Your task to perform on an android device: open app "PlayWell" (install if not already installed) and go to login screen Image 0: 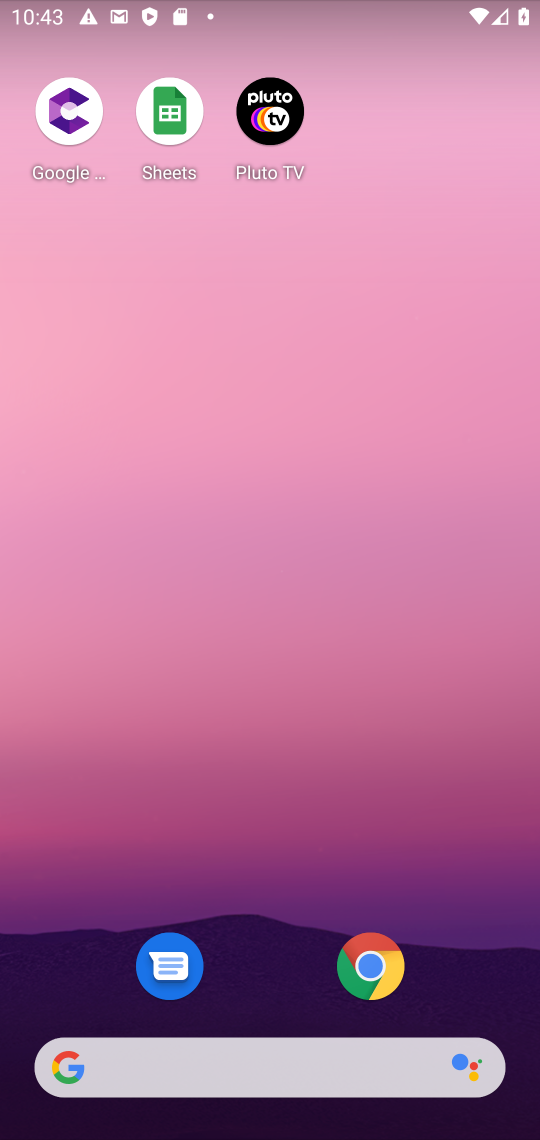
Step 0: press home button
Your task to perform on an android device: open app "PlayWell" (install if not already installed) and go to login screen Image 1: 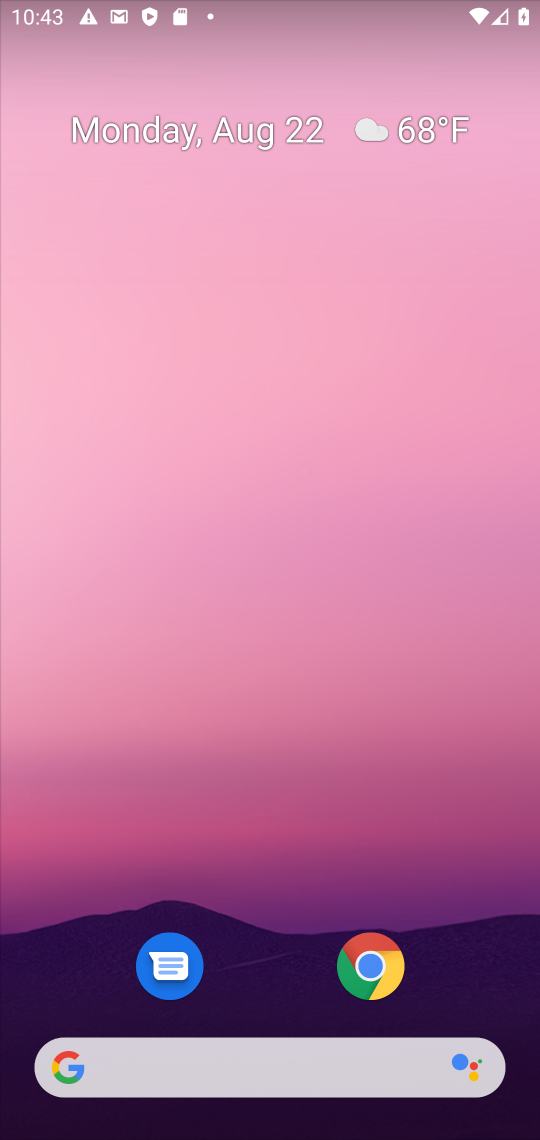
Step 1: drag from (460, 801) to (464, 104)
Your task to perform on an android device: open app "PlayWell" (install if not already installed) and go to login screen Image 2: 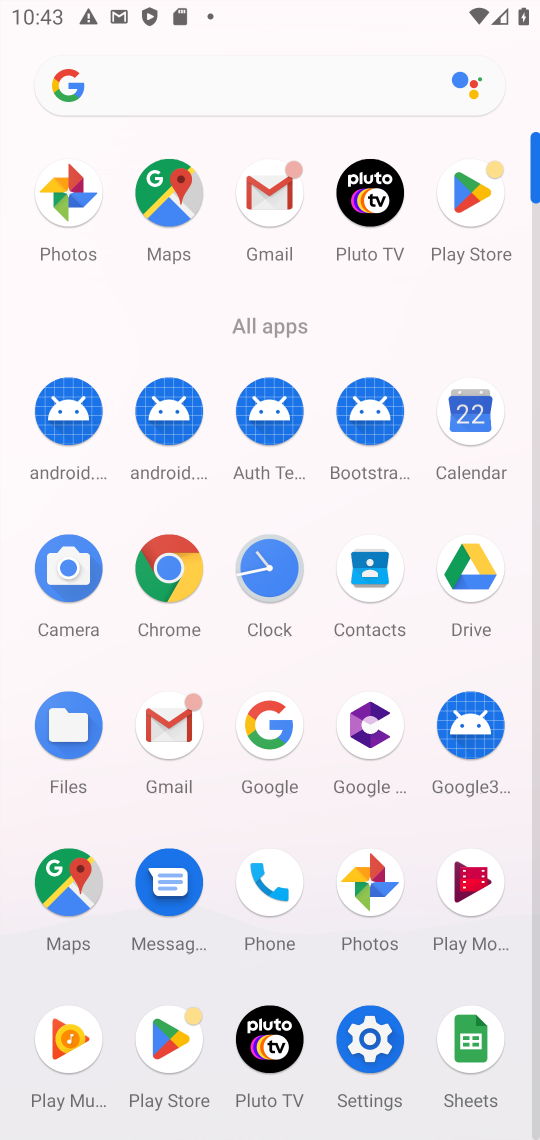
Step 2: click (471, 185)
Your task to perform on an android device: open app "PlayWell" (install if not already installed) and go to login screen Image 3: 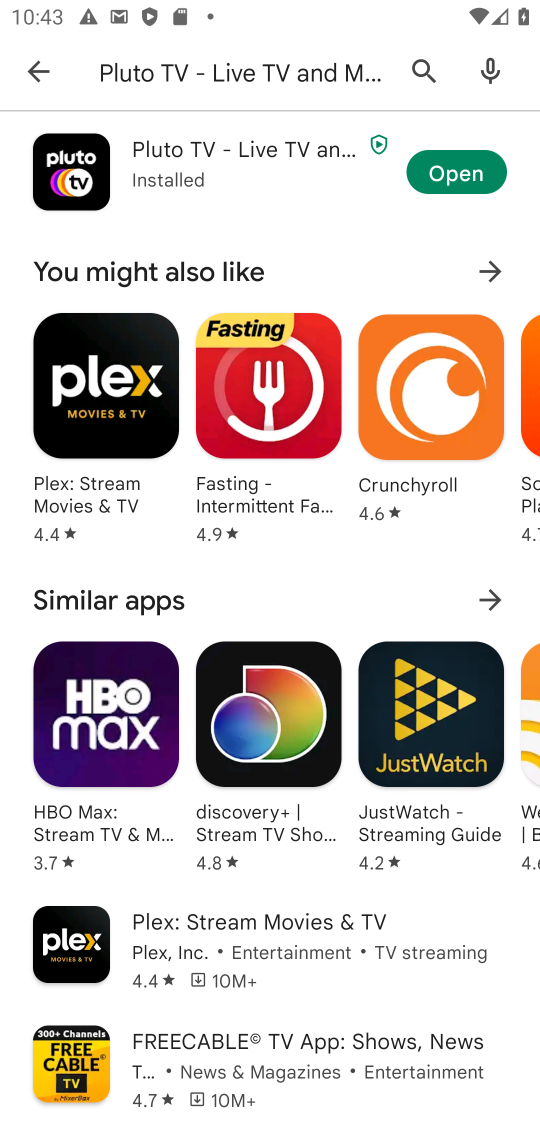
Step 3: press back button
Your task to perform on an android device: open app "PlayWell" (install if not already installed) and go to login screen Image 4: 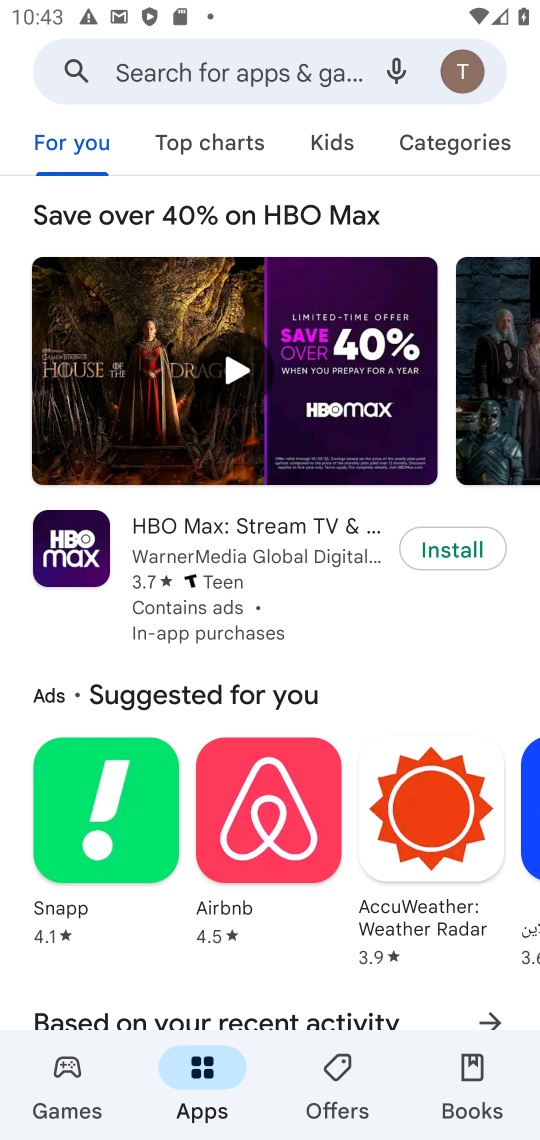
Step 4: click (221, 59)
Your task to perform on an android device: open app "PlayWell" (install if not already installed) and go to login screen Image 5: 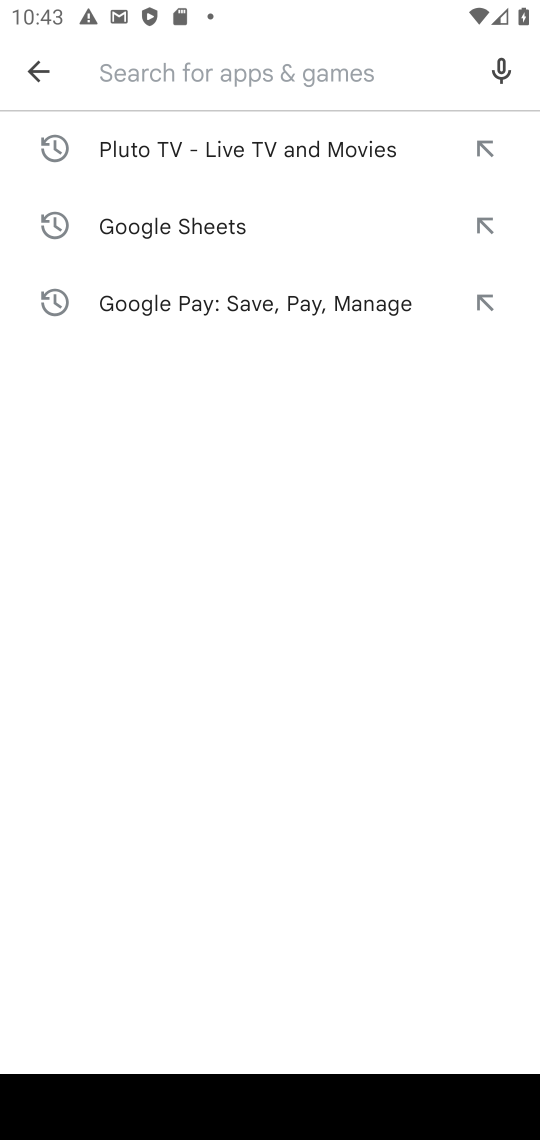
Step 5: press enter
Your task to perform on an android device: open app "PlayWell" (install if not already installed) and go to login screen Image 6: 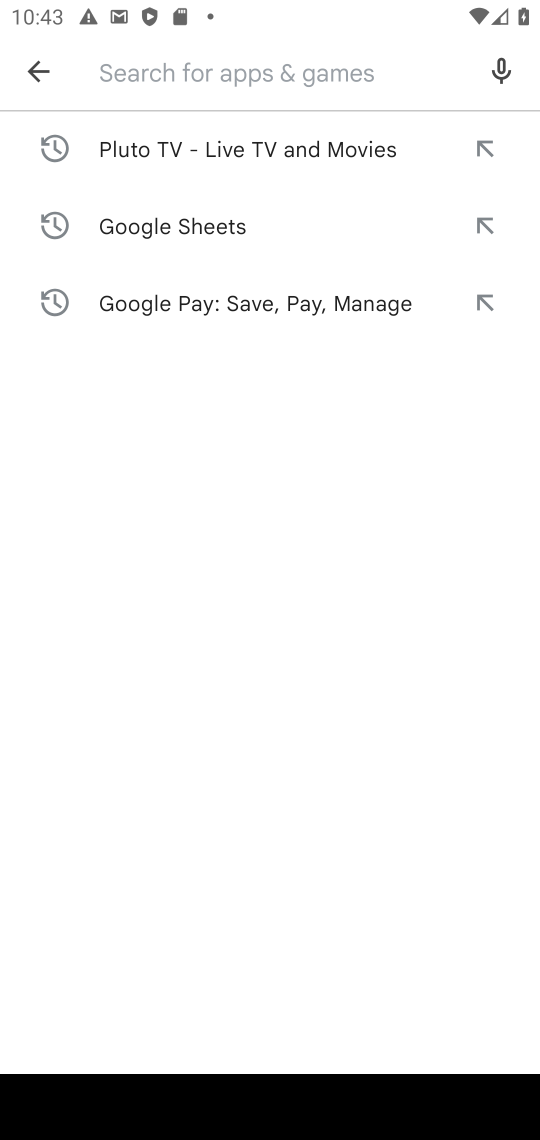
Step 6: type "play well"
Your task to perform on an android device: open app "PlayWell" (install if not already installed) and go to login screen Image 7: 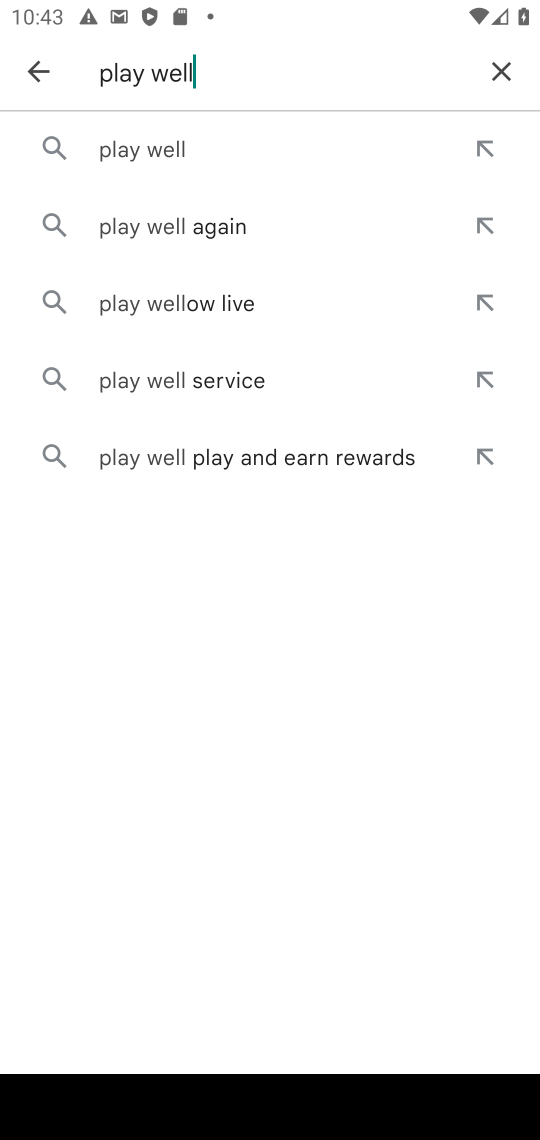
Step 7: click (187, 135)
Your task to perform on an android device: open app "PlayWell" (install if not already installed) and go to login screen Image 8: 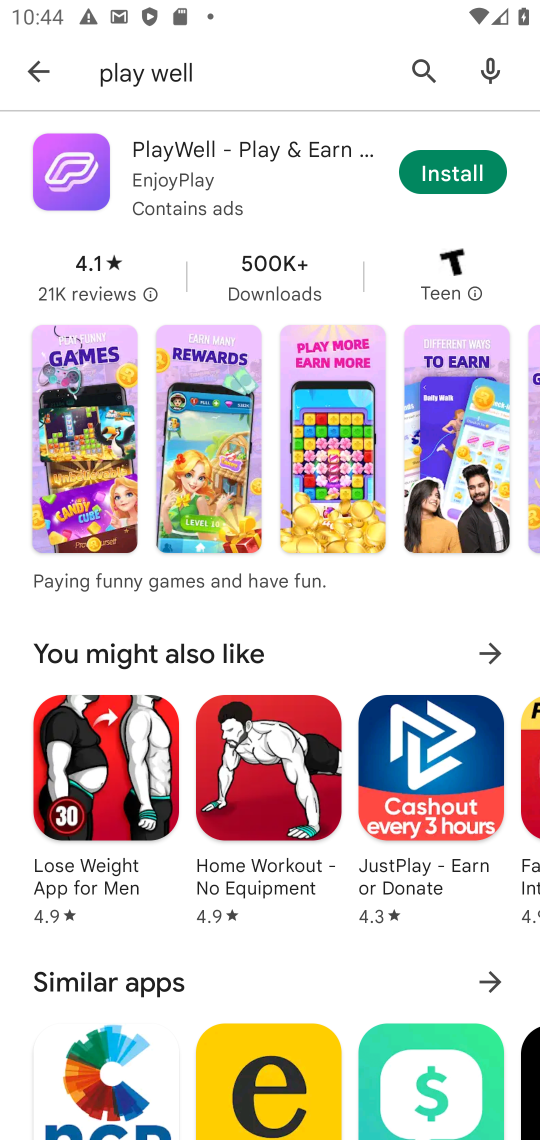
Step 8: click (458, 174)
Your task to perform on an android device: open app "PlayWell" (install if not already installed) and go to login screen Image 9: 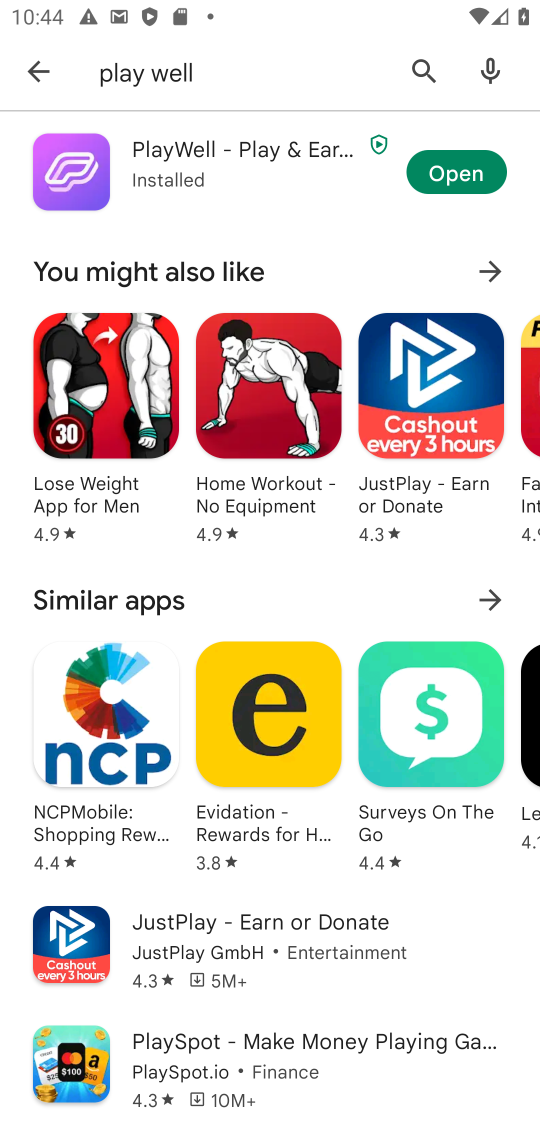
Step 9: click (468, 176)
Your task to perform on an android device: open app "PlayWell" (install if not already installed) and go to login screen Image 10: 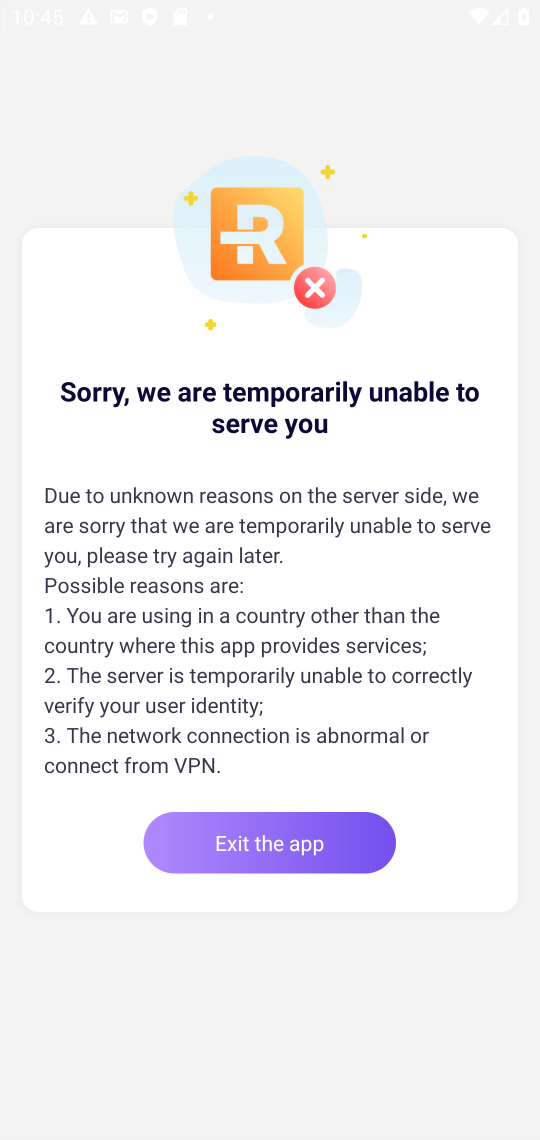
Step 10: task complete